Your task to perform on an android device: set the timer Image 0: 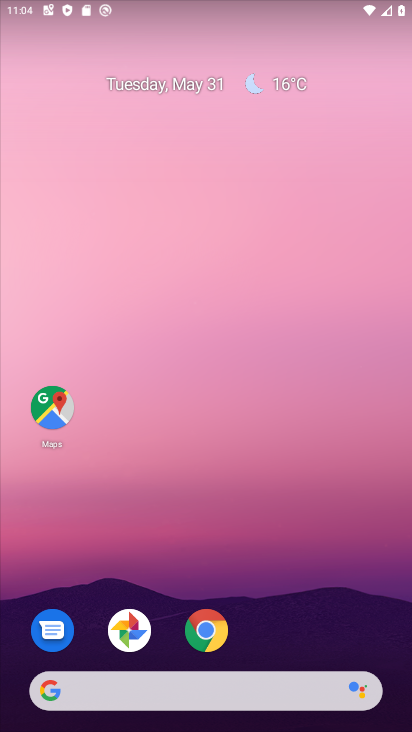
Step 0: drag from (244, 583) to (240, 207)
Your task to perform on an android device: set the timer Image 1: 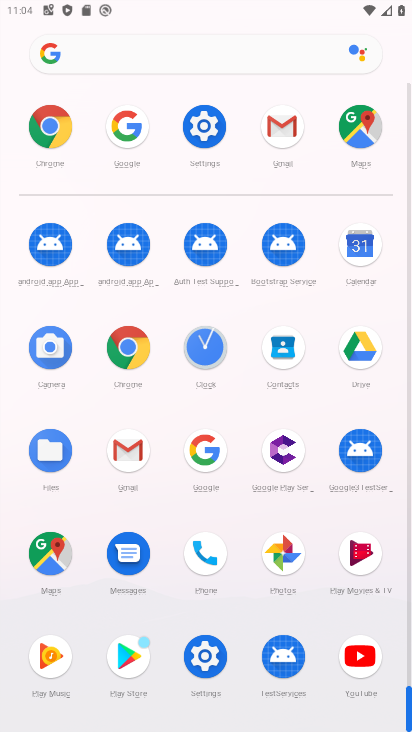
Step 1: click (208, 343)
Your task to perform on an android device: set the timer Image 2: 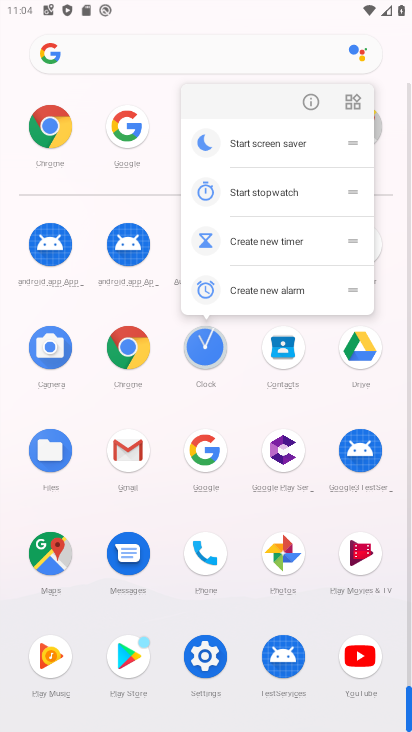
Step 2: click (206, 338)
Your task to perform on an android device: set the timer Image 3: 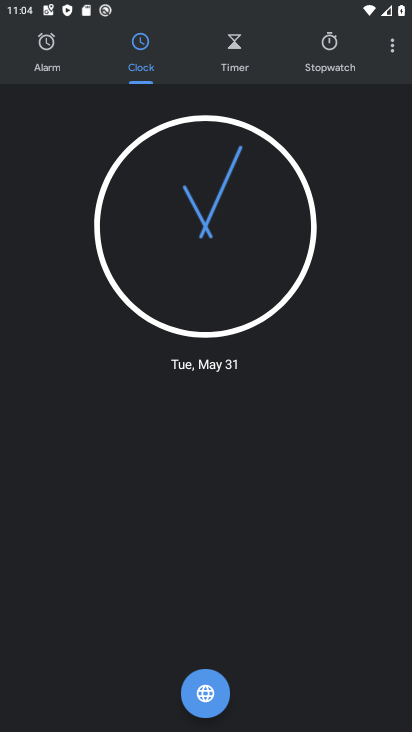
Step 3: click (239, 56)
Your task to perform on an android device: set the timer Image 4: 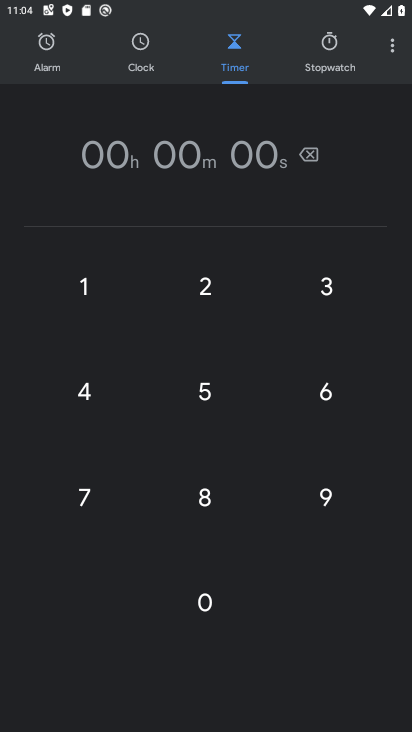
Step 4: click (179, 161)
Your task to perform on an android device: set the timer Image 5: 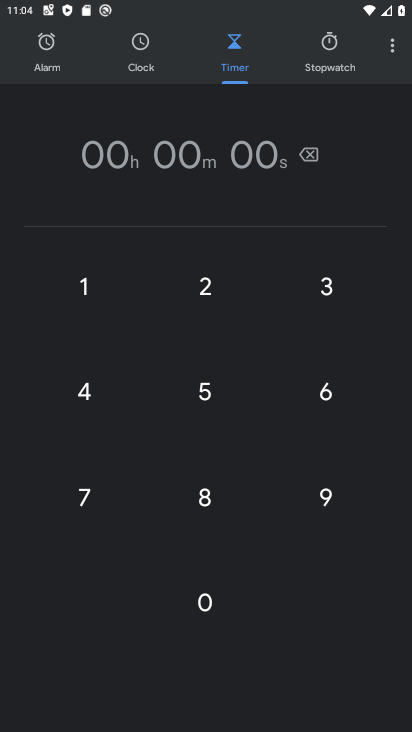
Step 5: type "56789"
Your task to perform on an android device: set the timer Image 6: 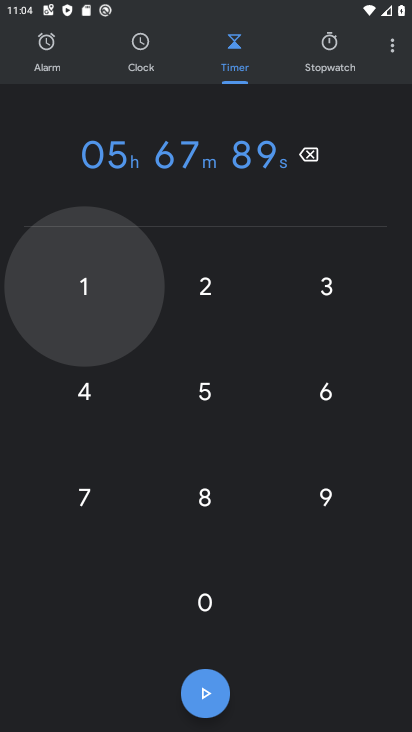
Step 6: task complete